Your task to perform on an android device: check storage Image 0: 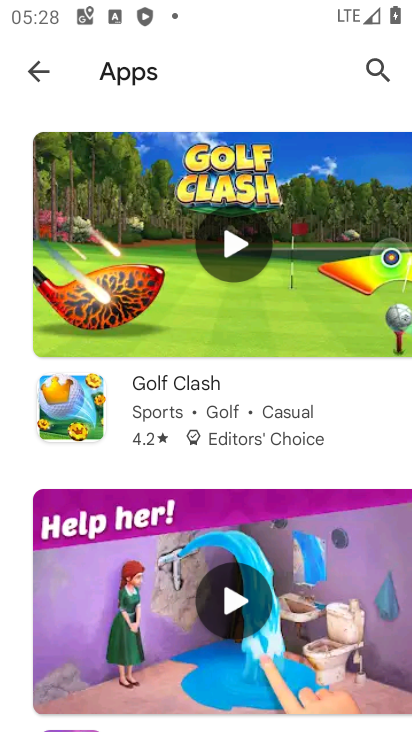
Step 0: press home button
Your task to perform on an android device: check storage Image 1: 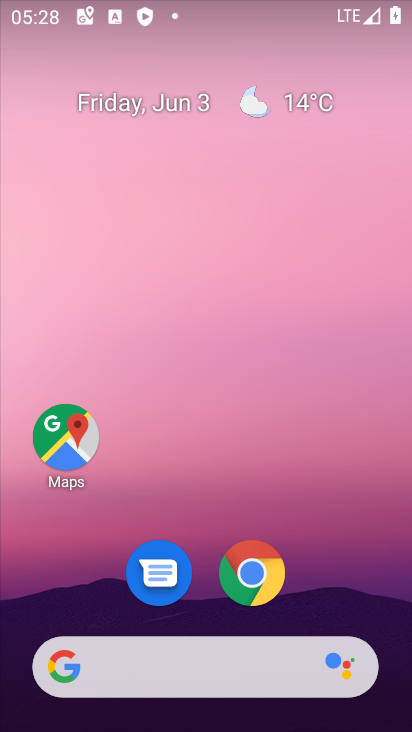
Step 1: drag from (315, 621) to (256, 35)
Your task to perform on an android device: check storage Image 2: 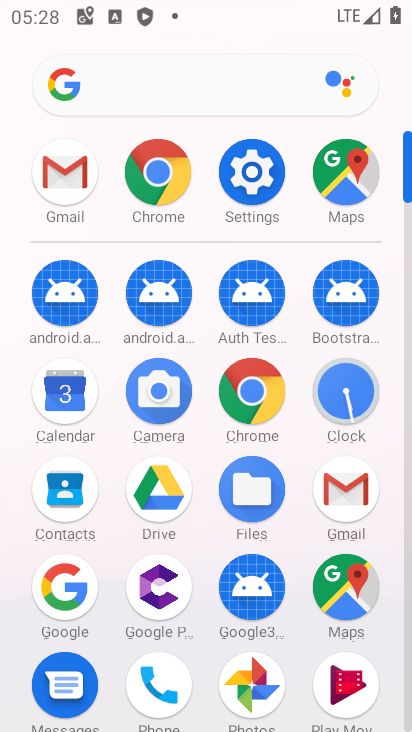
Step 2: click (271, 183)
Your task to perform on an android device: check storage Image 3: 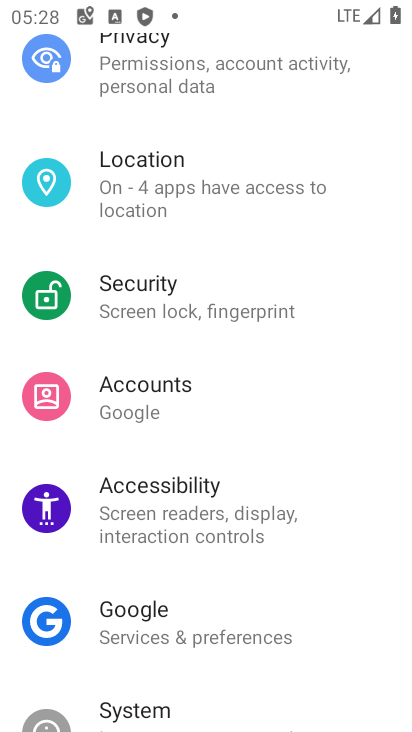
Step 3: drag from (330, 142) to (330, 433)
Your task to perform on an android device: check storage Image 4: 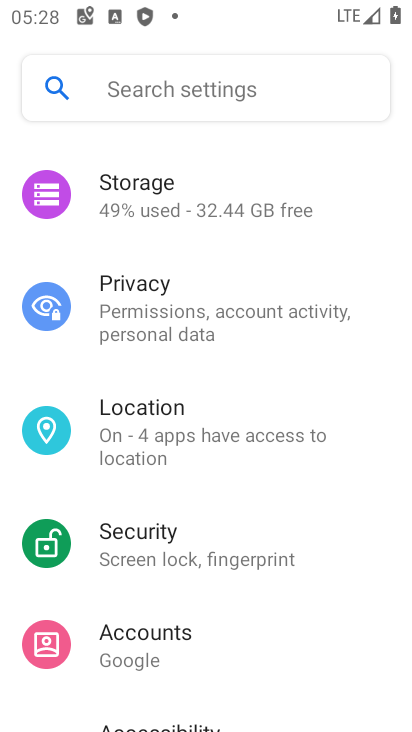
Step 4: click (242, 198)
Your task to perform on an android device: check storage Image 5: 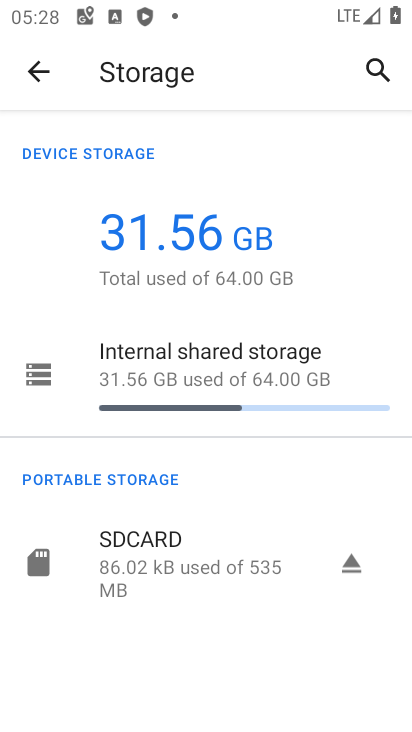
Step 5: task complete